Your task to perform on an android device: Go to settings Image 0: 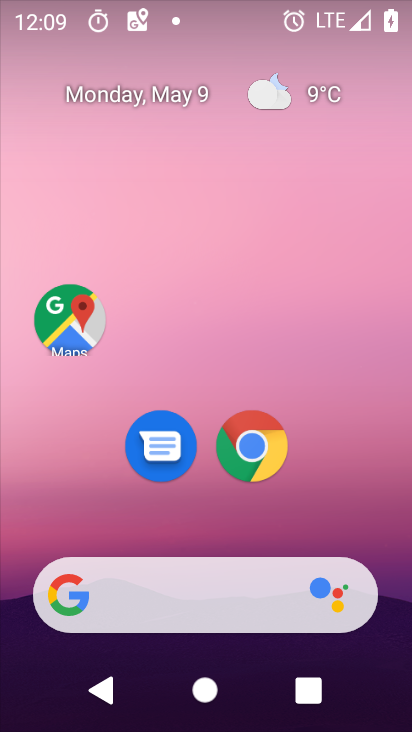
Step 0: drag from (356, 545) to (362, 14)
Your task to perform on an android device: Go to settings Image 1: 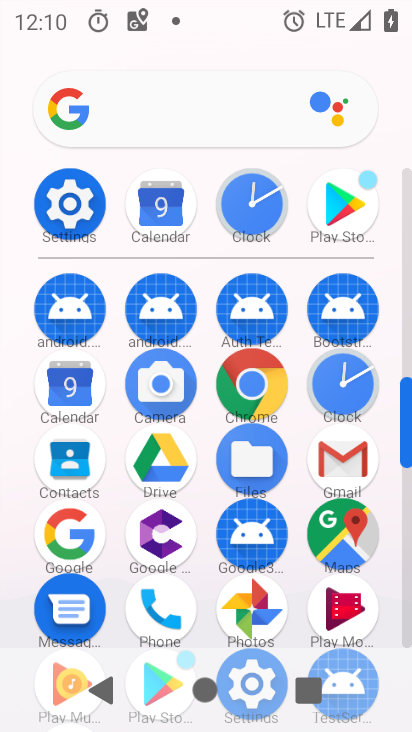
Step 1: click (70, 203)
Your task to perform on an android device: Go to settings Image 2: 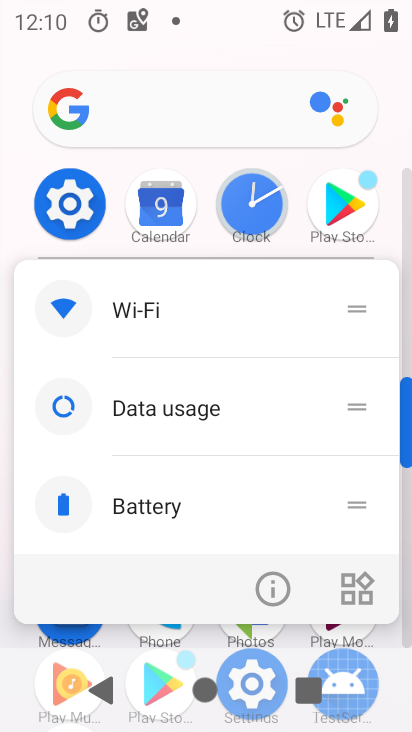
Step 2: click (82, 209)
Your task to perform on an android device: Go to settings Image 3: 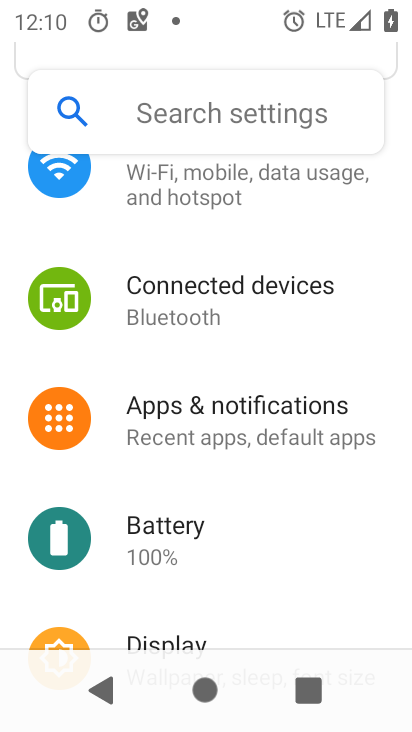
Step 3: task complete